Your task to perform on an android device: change keyboard looks Image 0: 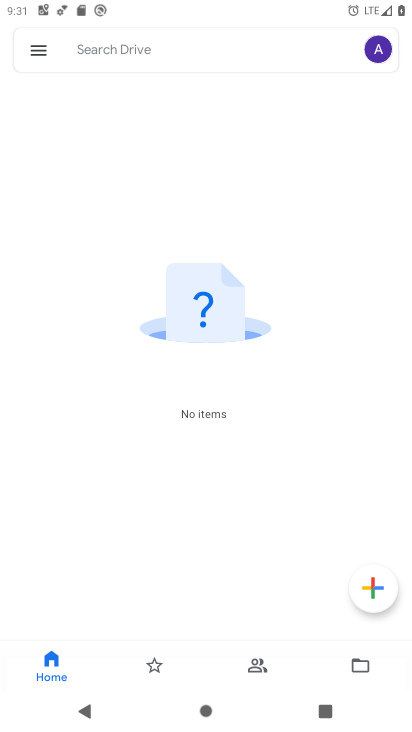
Step 0: press home button
Your task to perform on an android device: change keyboard looks Image 1: 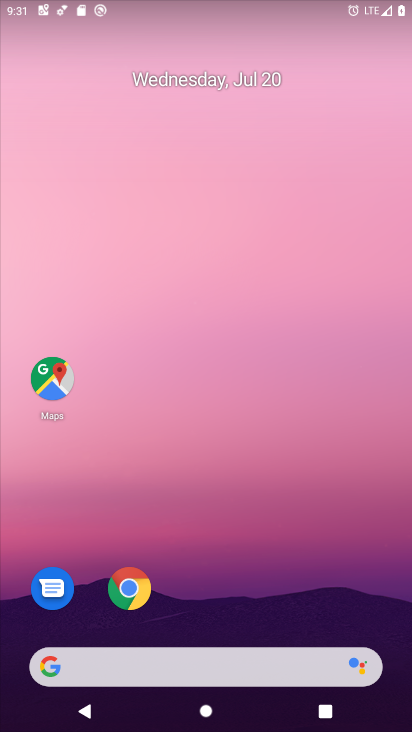
Step 1: drag from (227, 613) to (258, 82)
Your task to perform on an android device: change keyboard looks Image 2: 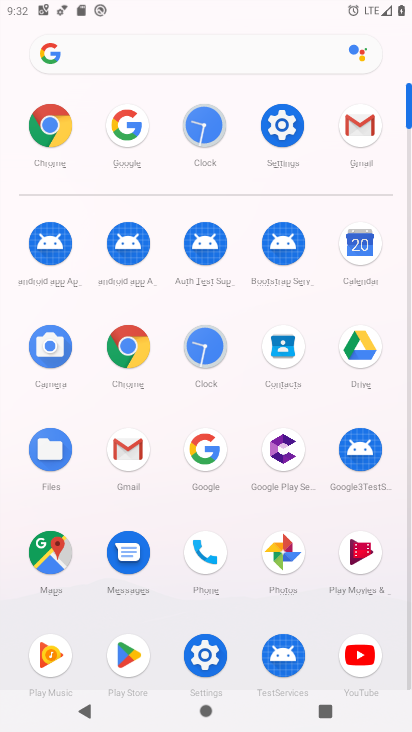
Step 2: click (274, 117)
Your task to perform on an android device: change keyboard looks Image 3: 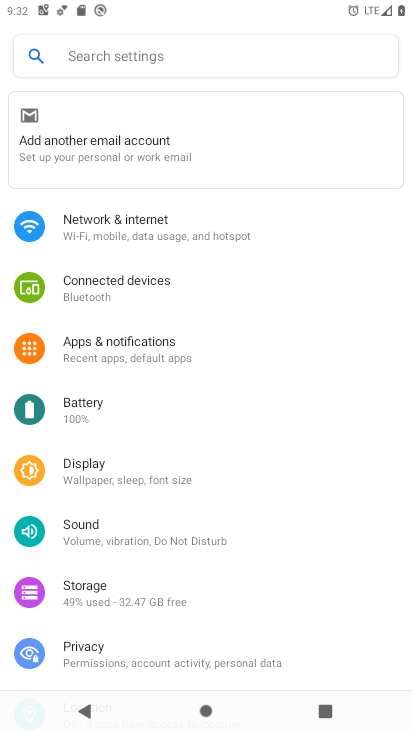
Step 3: drag from (168, 631) to (170, 89)
Your task to perform on an android device: change keyboard looks Image 4: 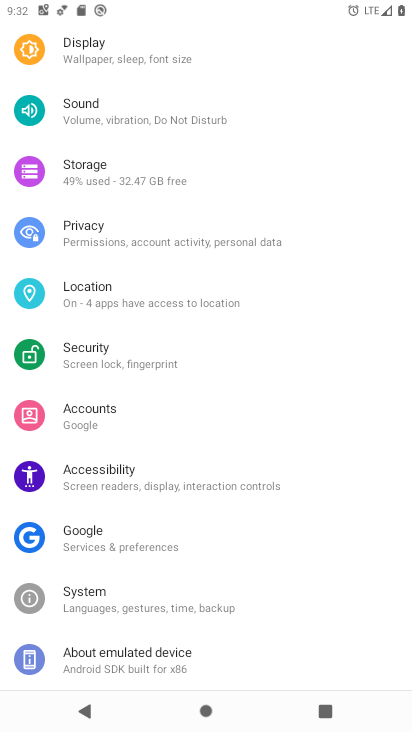
Step 4: click (116, 587)
Your task to perform on an android device: change keyboard looks Image 5: 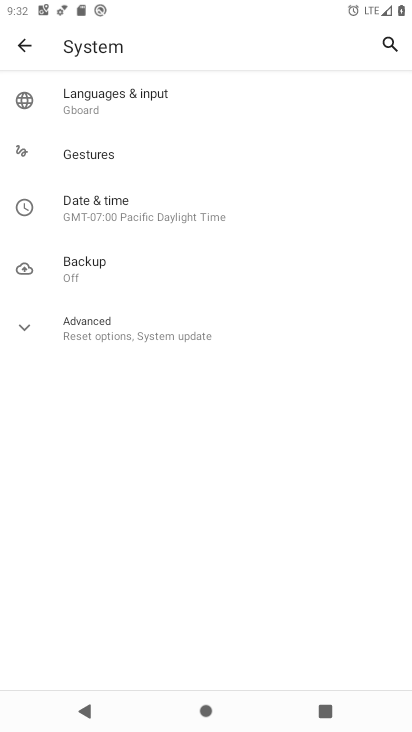
Step 5: click (24, 318)
Your task to perform on an android device: change keyboard looks Image 6: 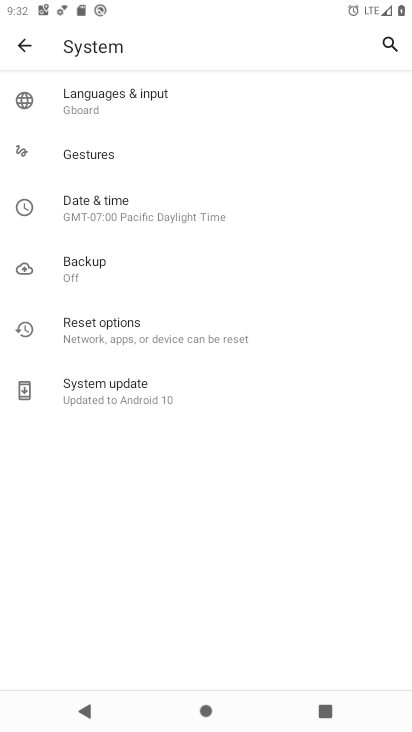
Step 6: click (108, 97)
Your task to perform on an android device: change keyboard looks Image 7: 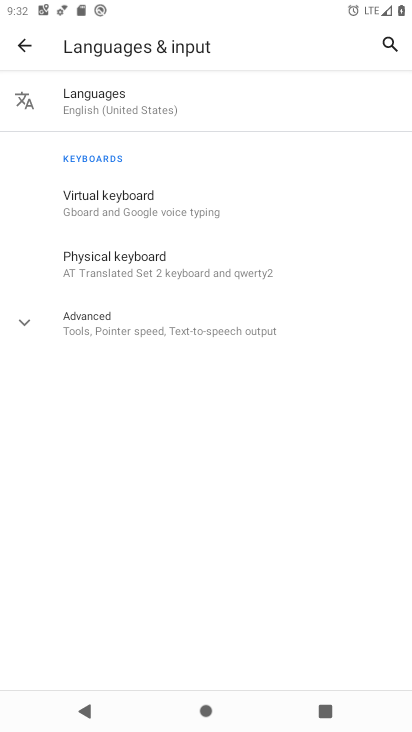
Step 7: click (98, 193)
Your task to perform on an android device: change keyboard looks Image 8: 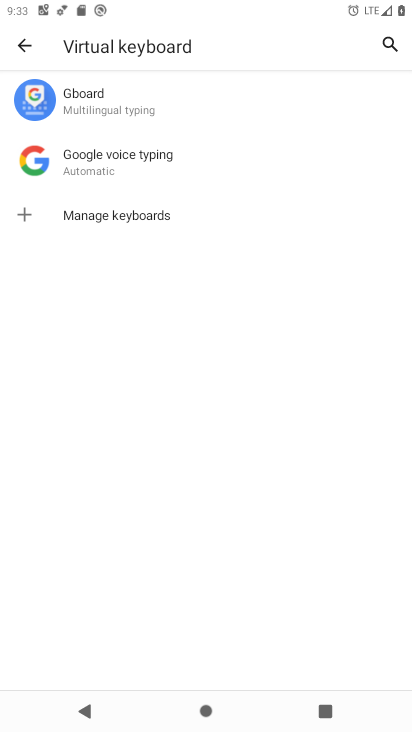
Step 8: click (119, 94)
Your task to perform on an android device: change keyboard looks Image 9: 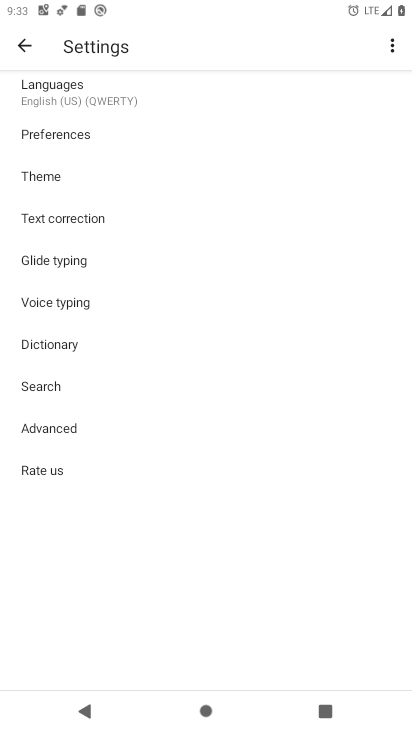
Step 9: click (69, 177)
Your task to perform on an android device: change keyboard looks Image 10: 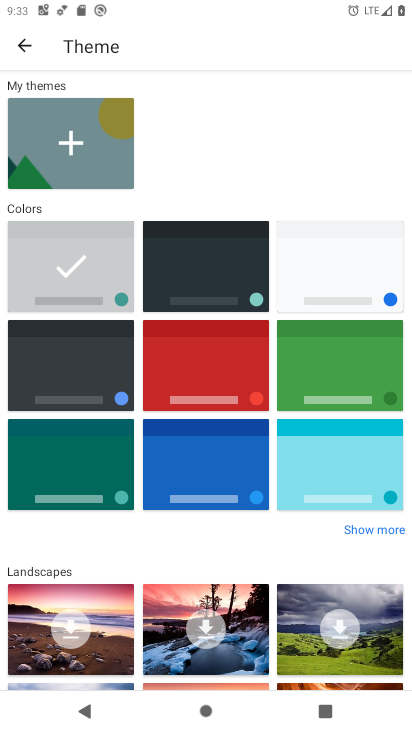
Step 10: click (194, 362)
Your task to perform on an android device: change keyboard looks Image 11: 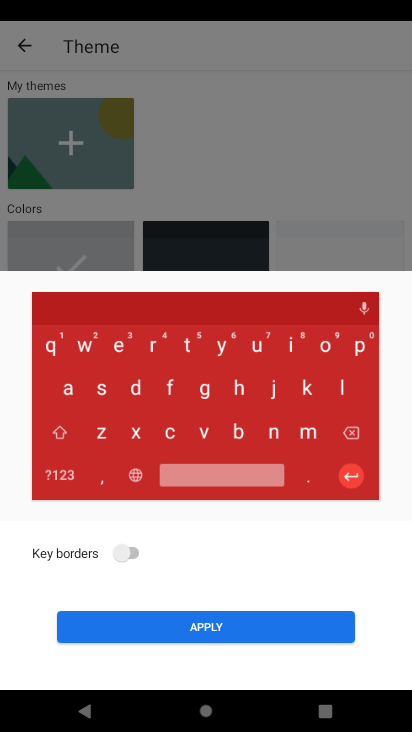
Step 11: click (217, 625)
Your task to perform on an android device: change keyboard looks Image 12: 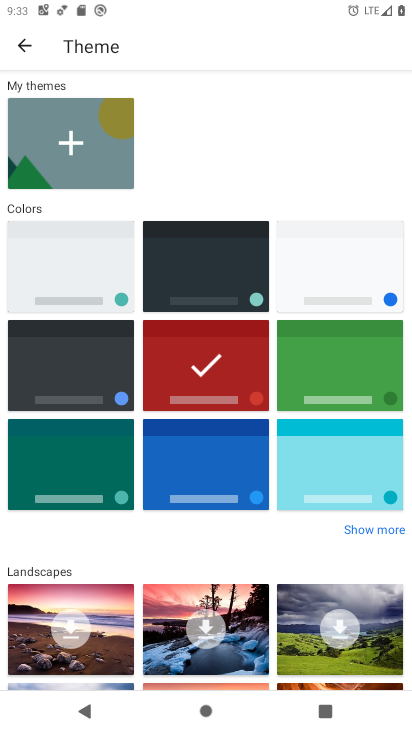
Step 12: task complete